Your task to perform on an android device: Open the stopwatch Image 0: 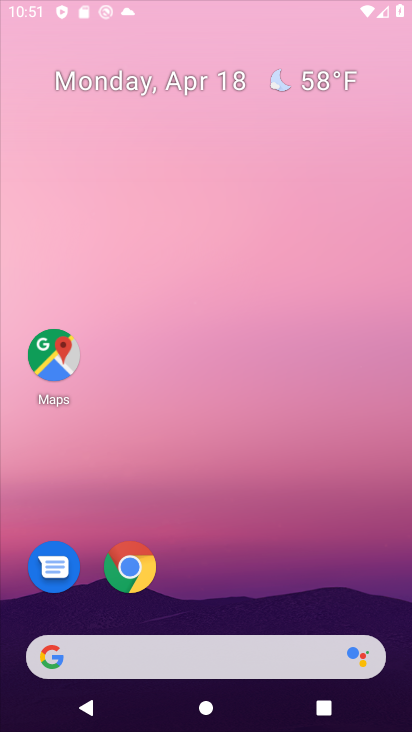
Step 0: click (323, 136)
Your task to perform on an android device: Open the stopwatch Image 1: 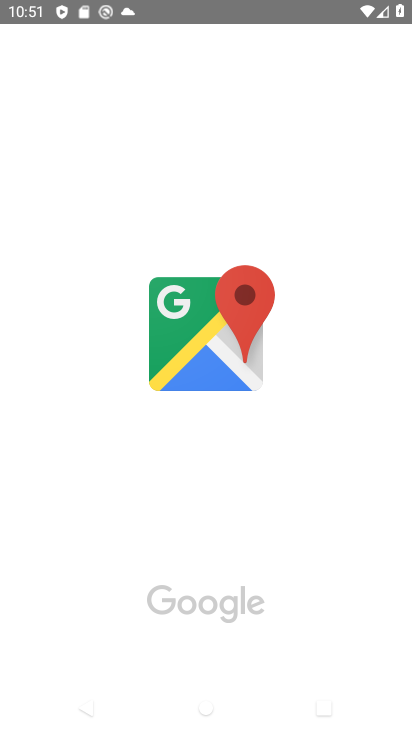
Step 1: press home button
Your task to perform on an android device: Open the stopwatch Image 2: 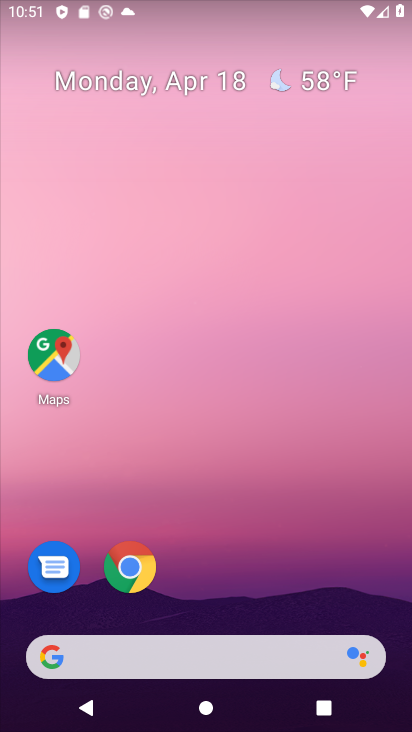
Step 2: drag from (400, 625) to (312, 109)
Your task to perform on an android device: Open the stopwatch Image 3: 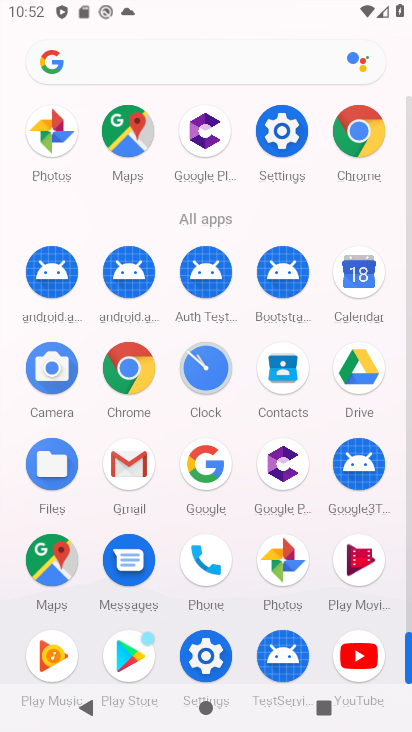
Step 3: click (203, 362)
Your task to perform on an android device: Open the stopwatch Image 4: 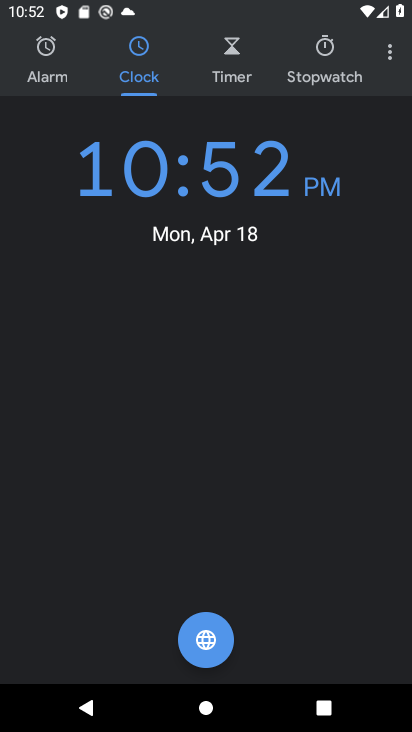
Step 4: click (322, 53)
Your task to perform on an android device: Open the stopwatch Image 5: 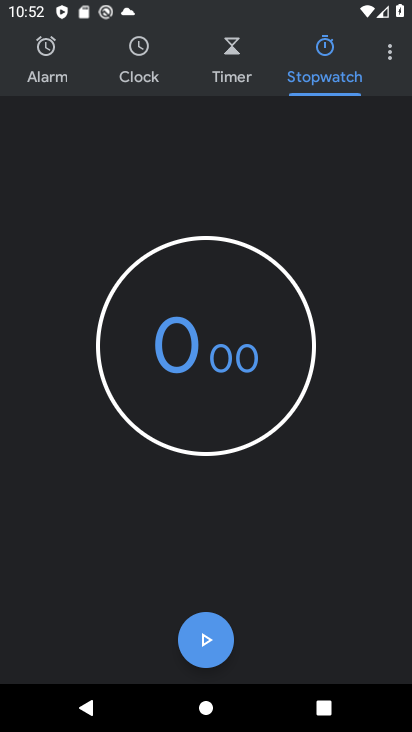
Step 5: task complete